Your task to perform on an android device: turn off improve location accuracy Image 0: 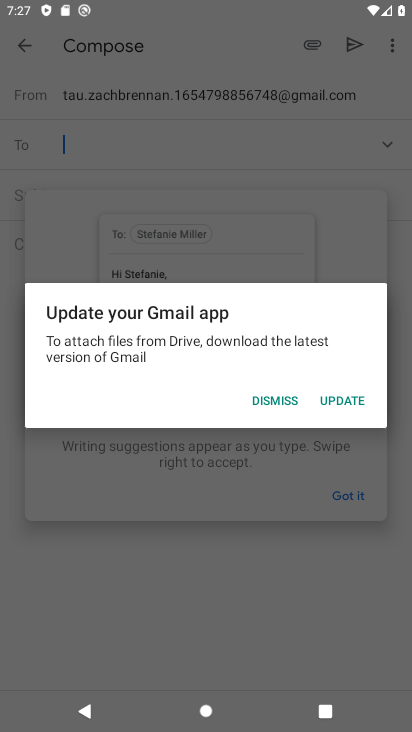
Step 0: press home button
Your task to perform on an android device: turn off improve location accuracy Image 1: 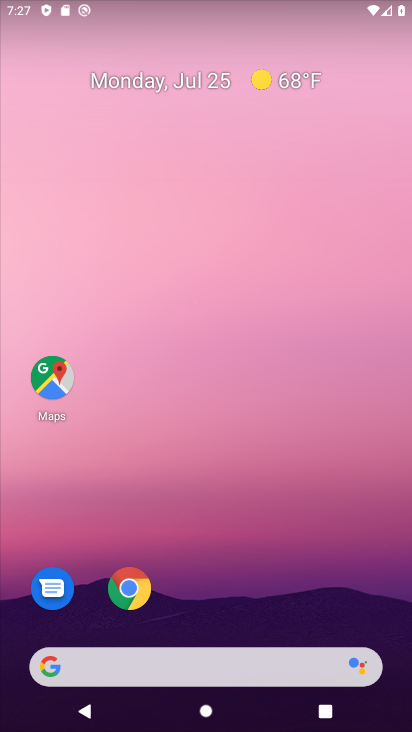
Step 1: drag from (364, 600) to (366, 66)
Your task to perform on an android device: turn off improve location accuracy Image 2: 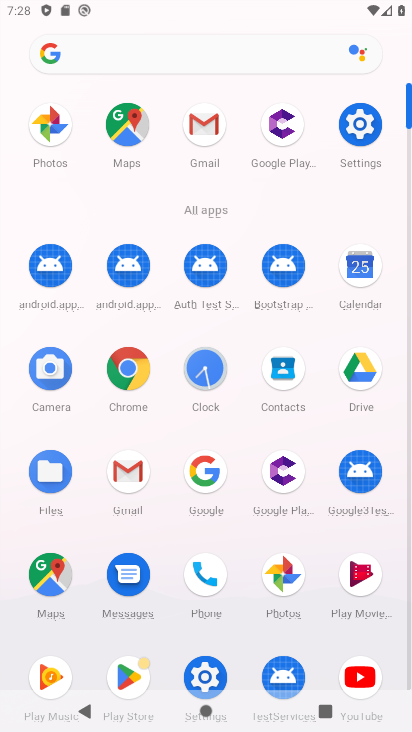
Step 2: click (356, 132)
Your task to perform on an android device: turn off improve location accuracy Image 3: 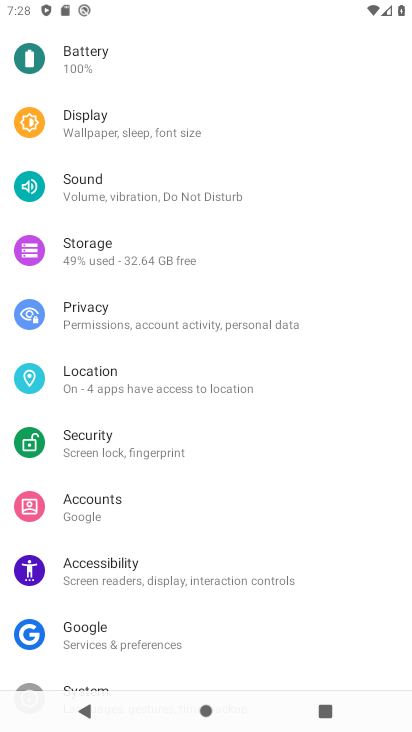
Step 3: drag from (350, 217) to (350, 289)
Your task to perform on an android device: turn off improve location accuracy Image 4: 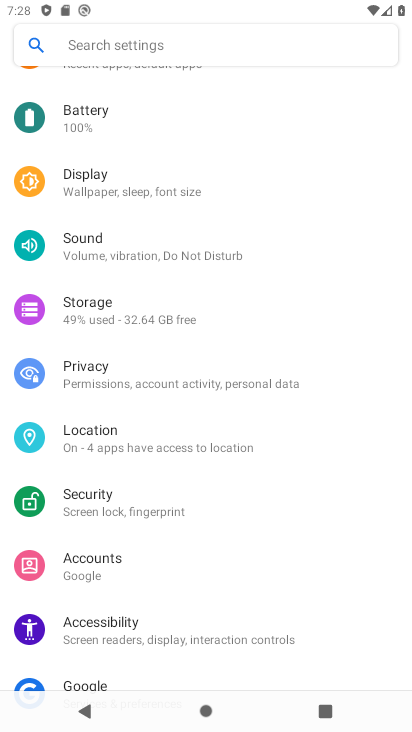
Step 4: drag from (350, 186) to (359, 287)
Your task to perform on an android device: turn off improve location accuracy Image 5: 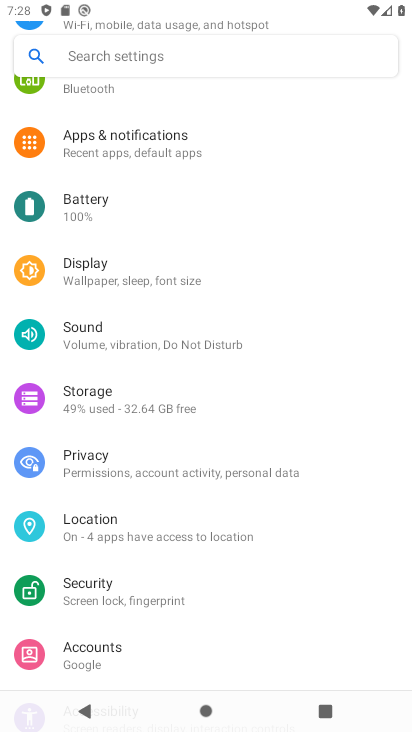
Step 5: drag from (358, 169) to (360, 277)
Your task to perform on an android device: turn off improve location accuracy Image 6: 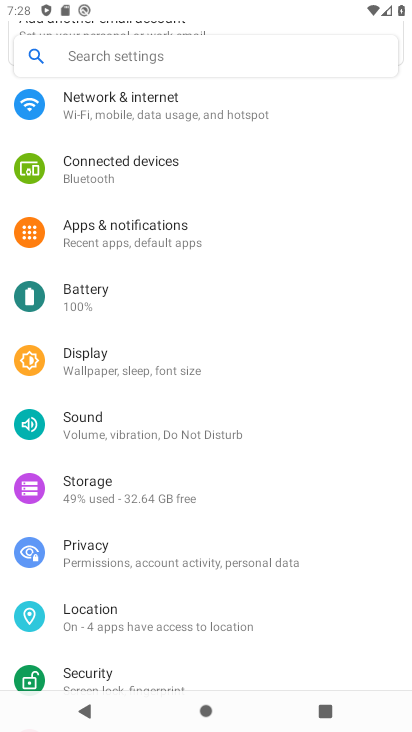
Step 6: drag from (343, 138) to (349, 362)
Your task to perform on an android device: turn off improve location accuracy Image 7: 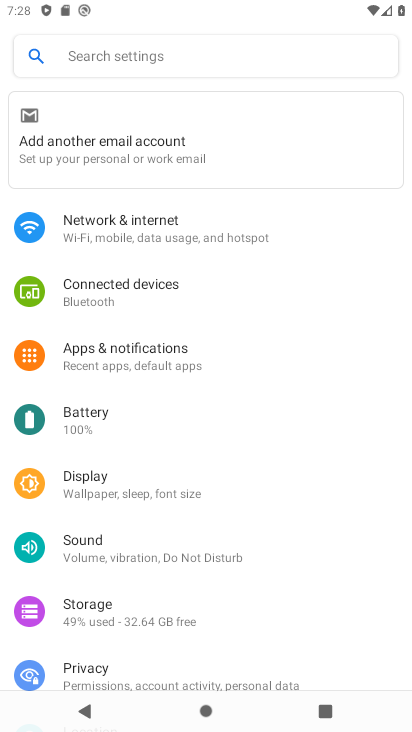
Step 7: drag from (343, 431) to (343, 326)
Your task to perform on an android device: turn off improve location accuracy Image 8: 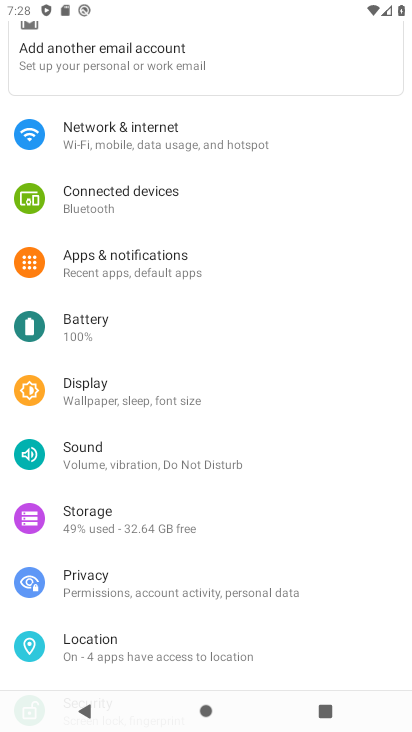
Step 8: drag from (334, 467) to (335, 331)
Your task to perform on an android device: turn off improve location accuracy Image 9: 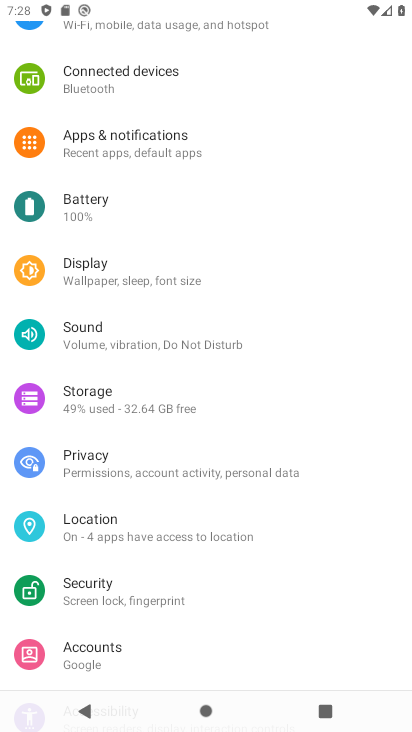
Step 9: drag from (340, 495) to (346, 369)
Your task to perform on an android device: turn off improve location accuracy Image 10: 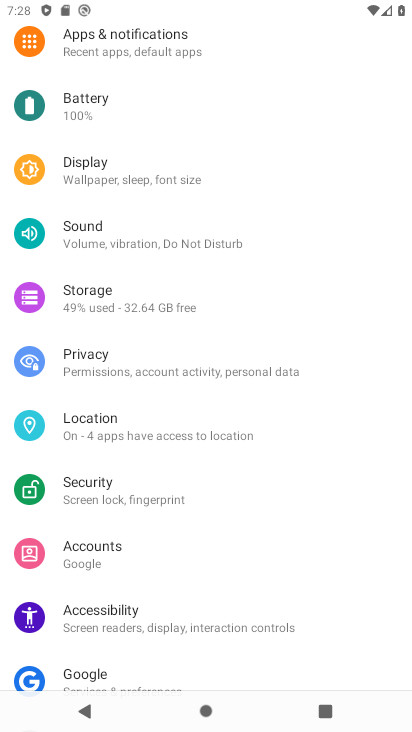
Step 10: drag from (349, 498) to (342, 317)
Your task to perform on an android device: turn off improve location accuracy Image 11: 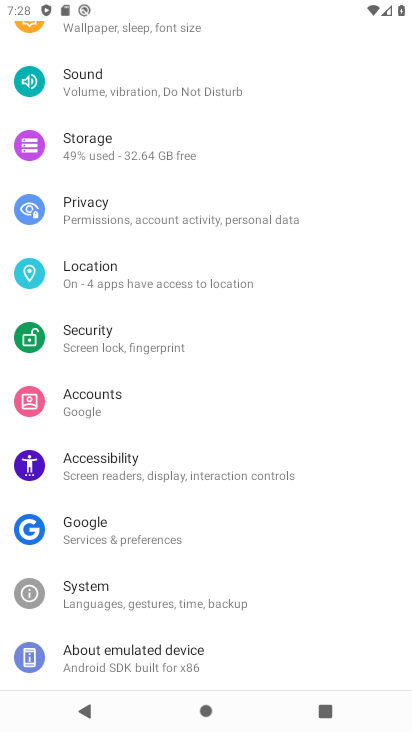
Step 11: click (272, 273)
Your task to perform on an android device: turn off improve location accuracy Image 12: 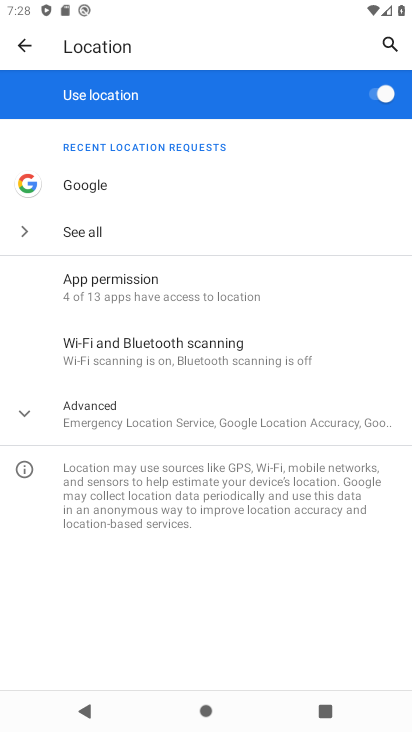
Step 12: click (277, 418)
Your task to perform on an android device: turn off improve location accuracy Image 13: 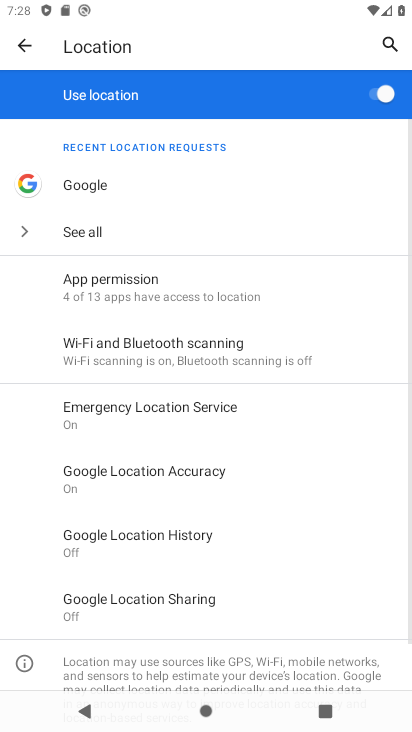
Step 13: drag from (292, 476) to (302, 289)
Your task to perform on an android device: turn off improve location accuracy Image 14: 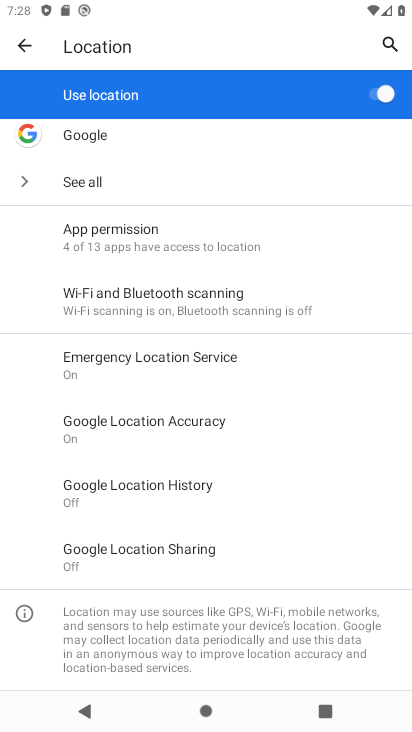
Step 14: click (256, 427)
Your task to perform on an android device: turn off improve location accuracy Image 15: 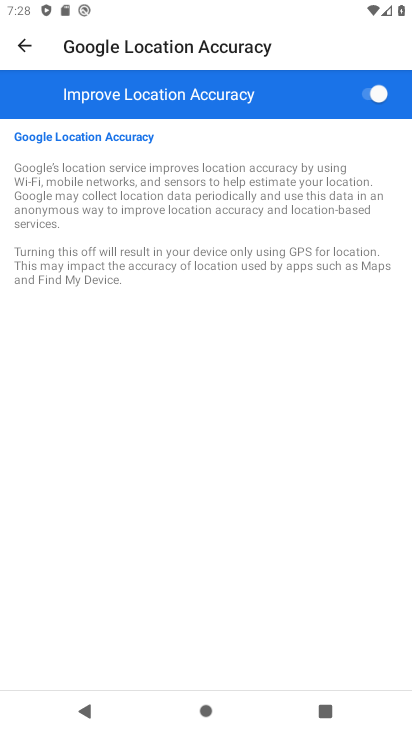
Step 15: click (372, 91)
Your task to perform on an android device: turn off improve location accuracy Image 16: 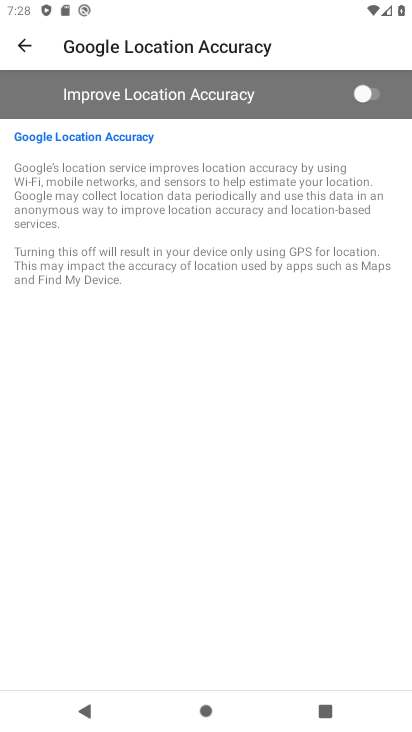
Step 16: task complete